Your task to perform on an android device: turn on sleep mode Image 0: 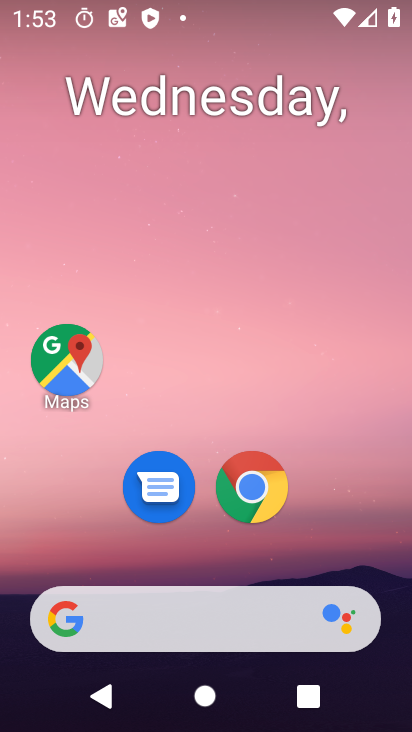
Step 0: drag from (158, 542) to (181, 113)
Your task to perform on an android device: turn on sleep mode Image 1: 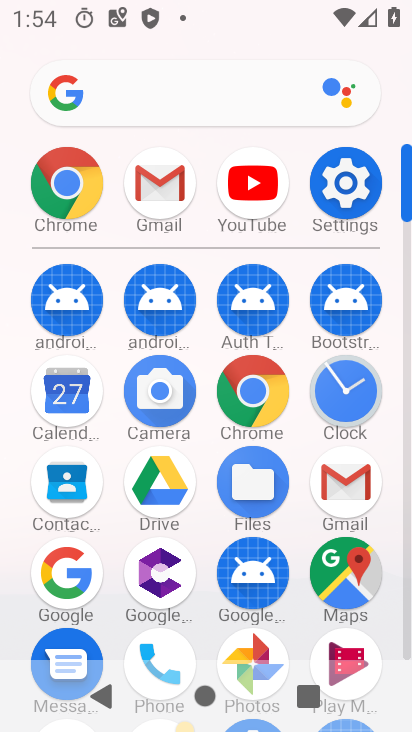
Step 1: click (335, 180)
Your task to perform on an android device: turn on sleep mode Image 2: 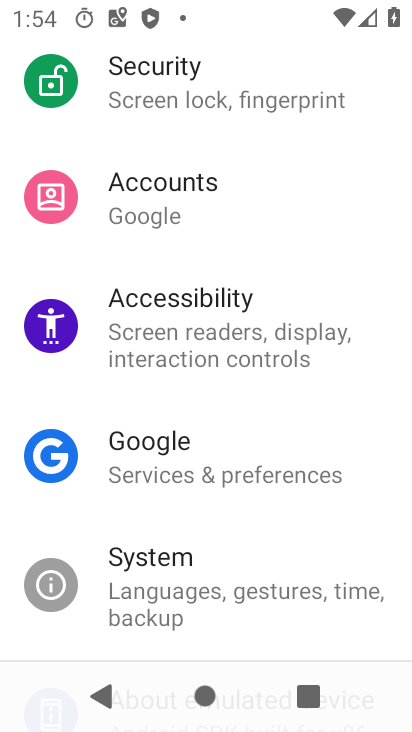
Step 2: drag from (192, 109) to (188, 671)
Your task to perform on an android device: turn on sleep mode Image 3: 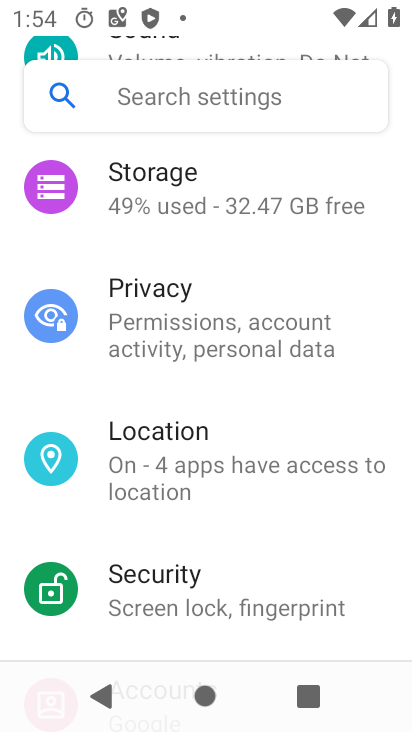
Step 3: click (169, 82)
Your task to perform on an android device: turn on sleep mode Image 4: 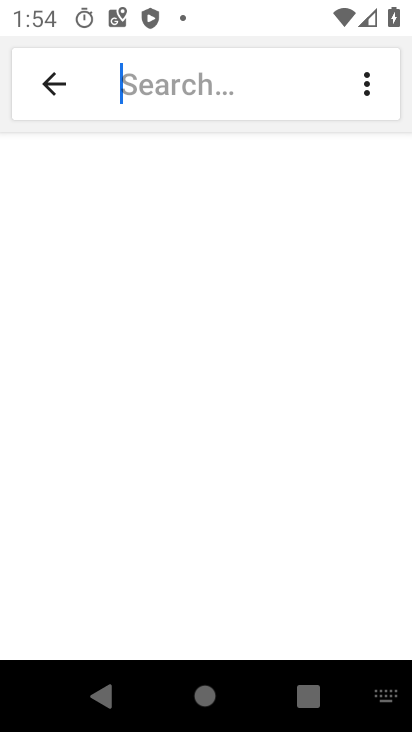
Step 4: type "sleep mode"
Your task to perform on an android device: turn on sleep mode Image 5: 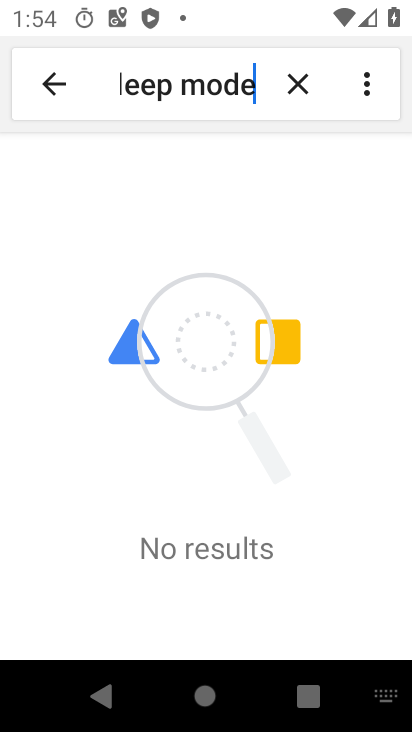
Step 5: task complete